Your task to perform on an android device: Open calendar and show me the first week of next month Image 0: 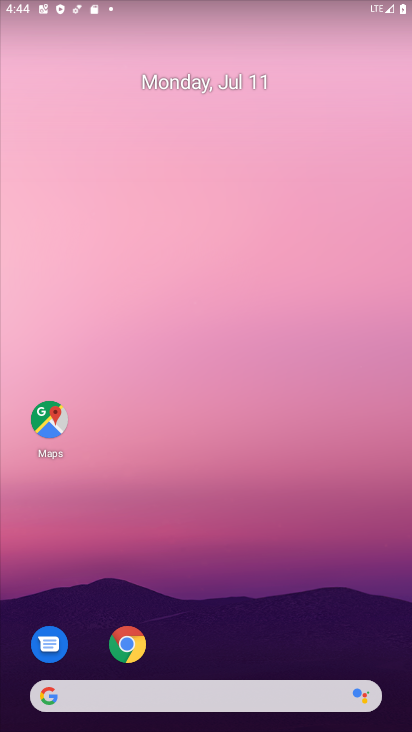
Step 0: click (274, 23)
Your task to perform on an android device: Open calendar and show me the first week of next month Image 1: 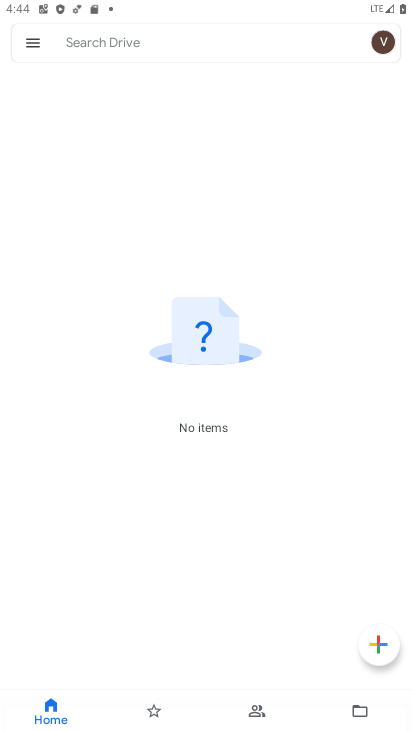
Step 1: press home button
Your task to perform on an android device: Open calendar and show me the first week of next month Image 2: 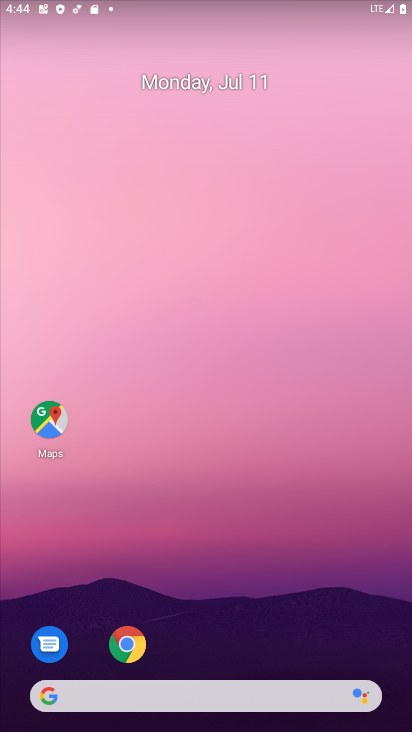
Step 2: drag from (323, 340) to (314, 0)
Your task to perform on an android device: Open calendar and show me the first week of next month Image 3: 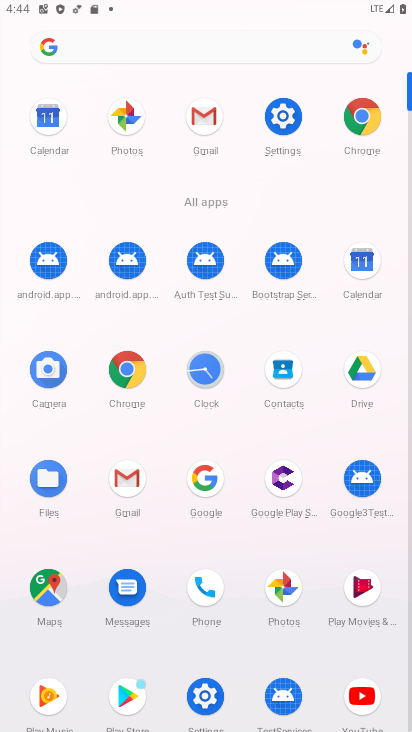
Step 3: click (358, 269)
Your task to perform on an android device: Open calendar and show me the first week of next month Image 4: 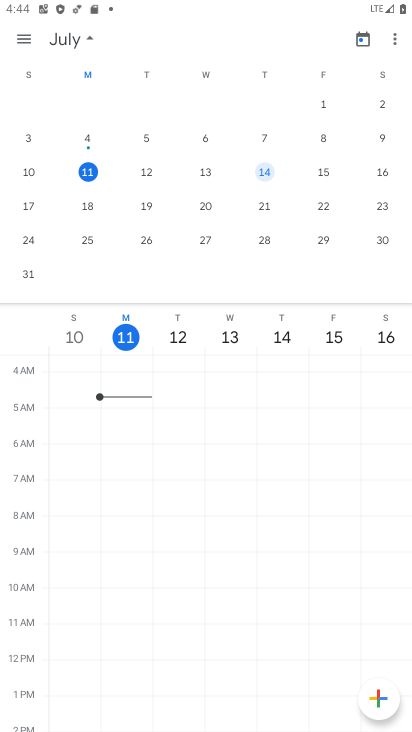
Step 4: click (91, 41)
Your task to perform on an android device: Open calendar and show me the first week of next month Image 5: 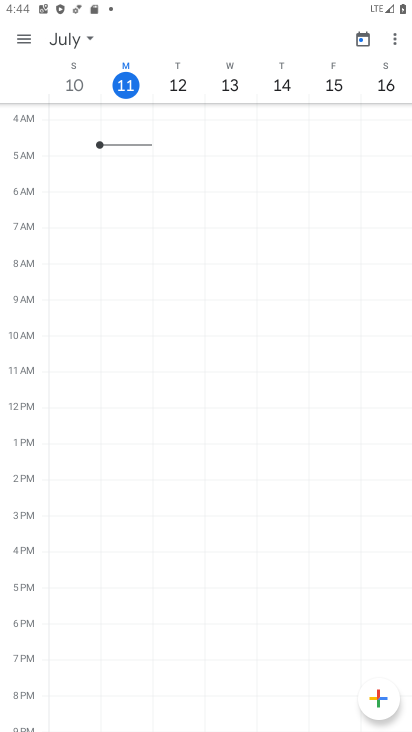
Step 5: click (87, 38)
Your task to perform on an android device: Open calendar and show me the first week of next month Image 6: 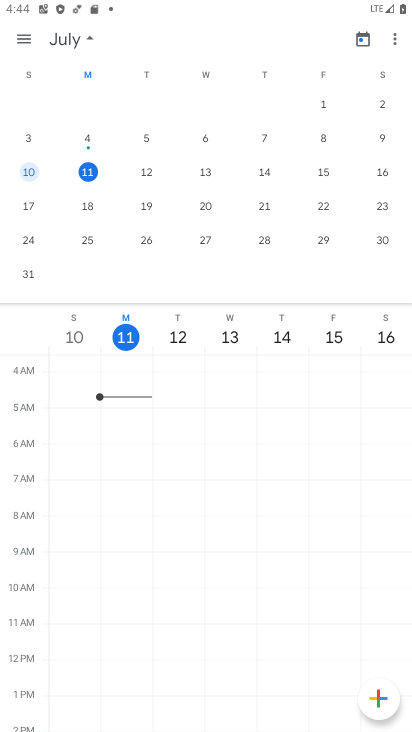
Step 6: drag from (343, 300) to (300, 40)
Your task to perform on an android device: Open calendar and show me the first week of next month Image 7: 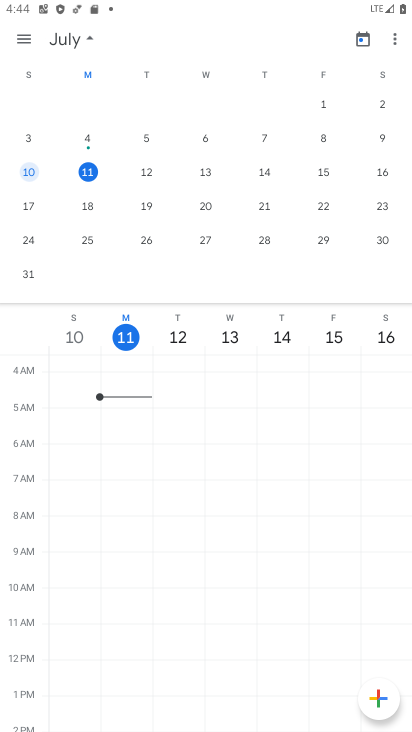
Step 7: drag from (204, 107) to (222, 6)
Your task to perform on an android device: Open calendar and show me the first week of next month Image 8: 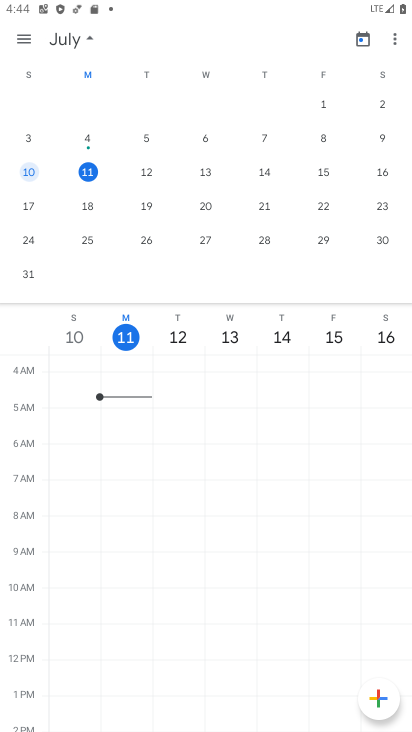
Step 8: drag from (291, 169) to (26, 134)
Your task to perform on an android device: Open calendar and show me the first week of next month Image 9: 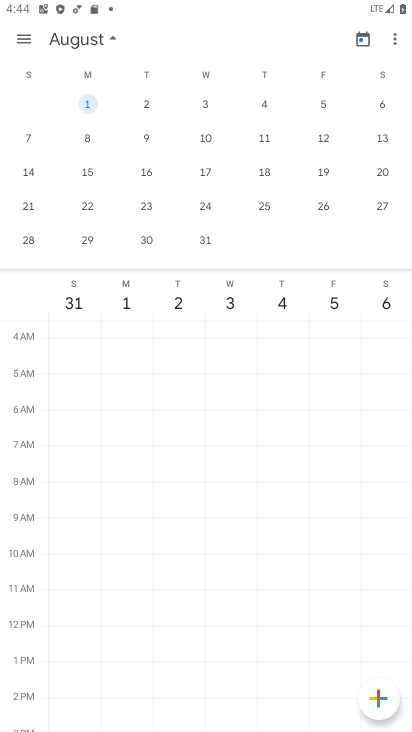
Step 9: click (204, 103)
Your task to perform on an android device: Open calendar and show me the first week of next month Image 10: 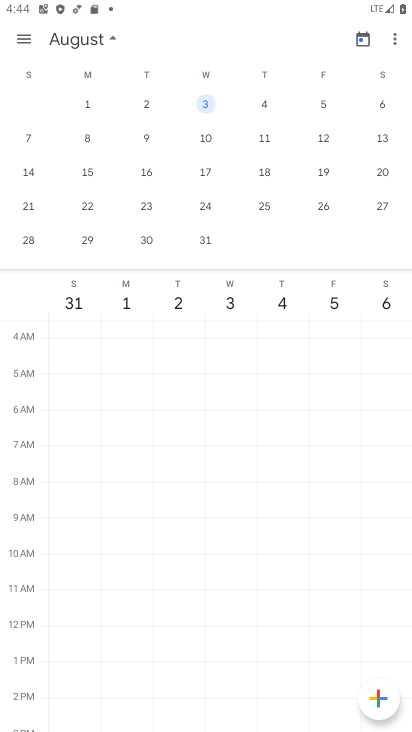
Step 10: click (28, 37)
Your task to perform on an android device: Open calendar and show me the first week of next month Image 11: 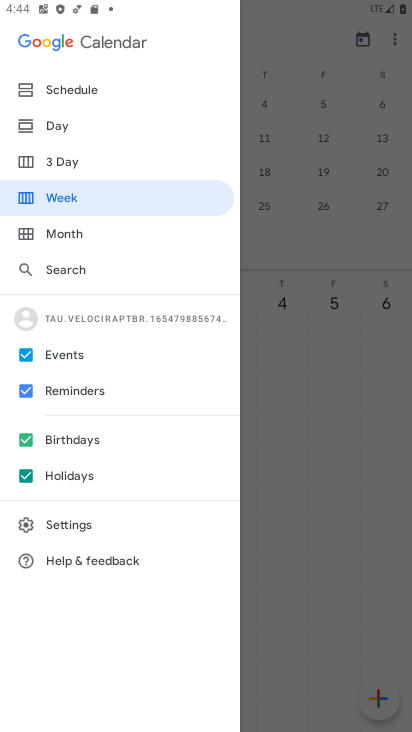
Step 11: click (75, 206)
Your task to perform on an android device: Open calendar and show me the first week of next month Image 12: 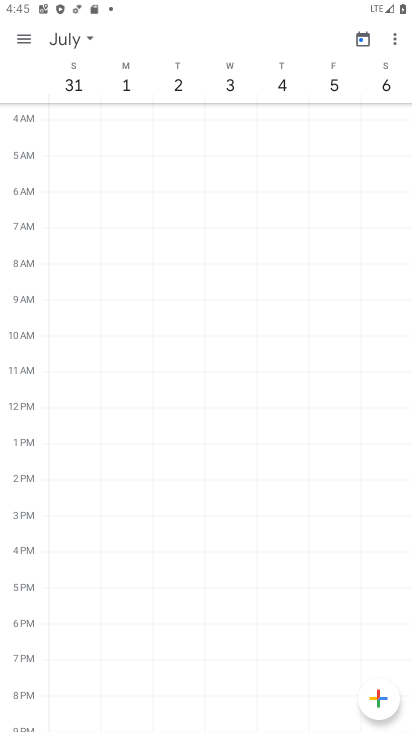
Step 12: task complete